Your task to perform on an android device: Open Reddit.com Image 0: 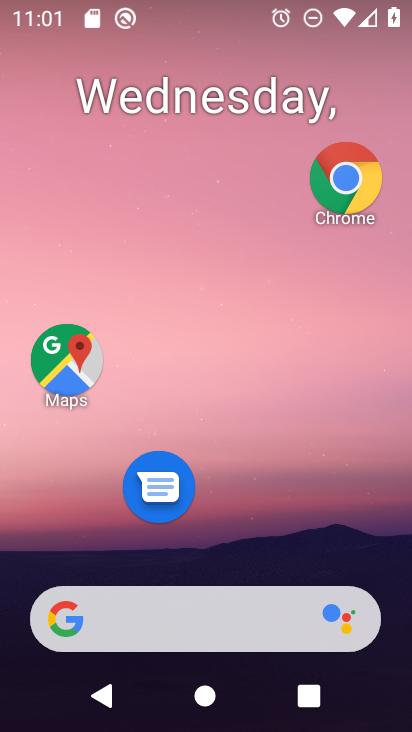
Step 0: drag from (219, 574) to (282, 99)
Your task to perform on an android device: Open Reddit.com Image 1: 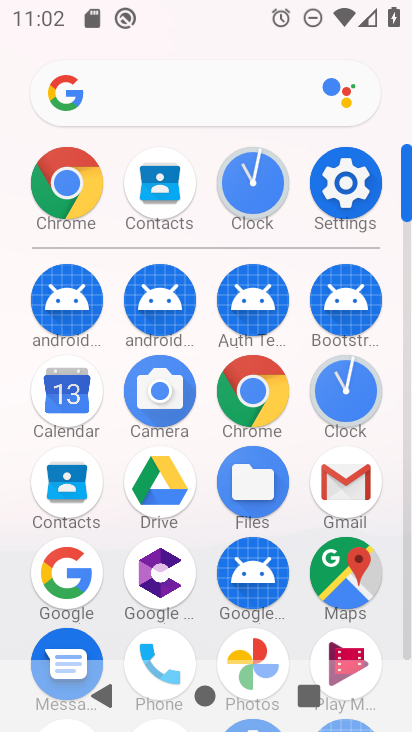
Step 1: click (251, 399)
Your task to perform on an android device: Open Reddit.com Image 2: 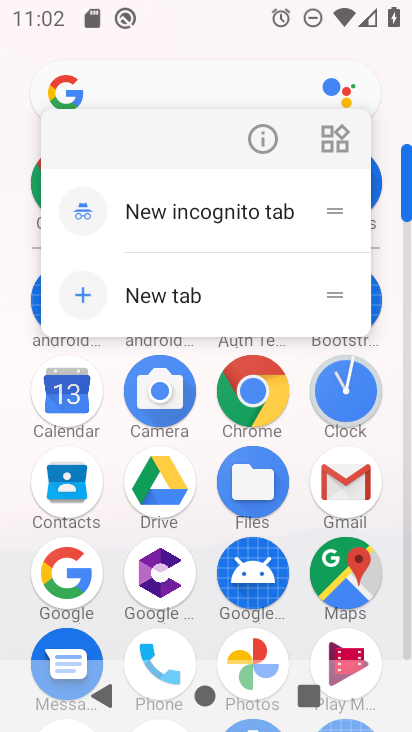
Step 2: click (251, 417)
Your task to perform on an android device: Open Reddit.com Image 3: 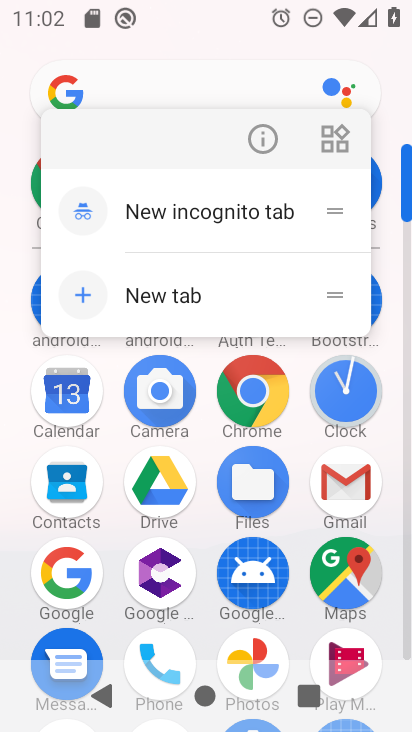
Step 3: click (250, 414)
Your task to perform on an android device: Open Reddit.com Image 4: 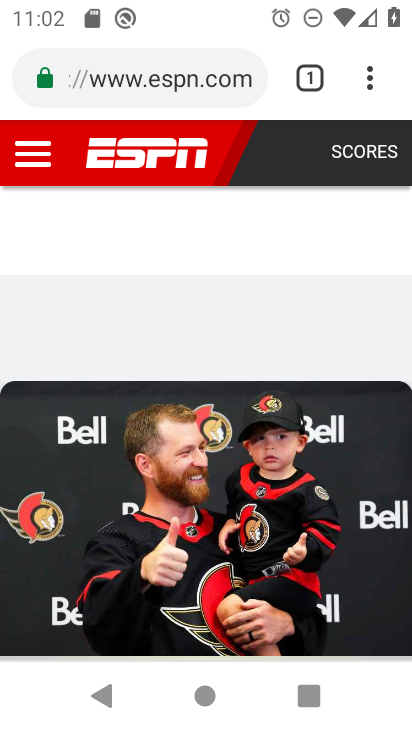
Step 4: click (224, 74)
Your task to perform on an android device: Open Reddit.com Image 5: 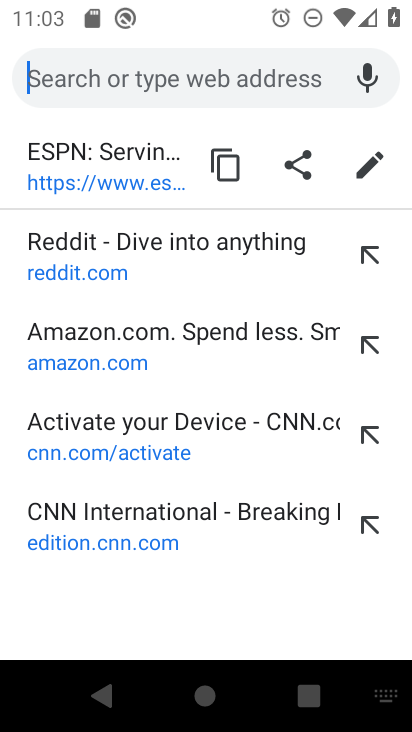
Step 5: click (120, 241)
Your task to perform on an android device: Open Reddit.com Image 6: 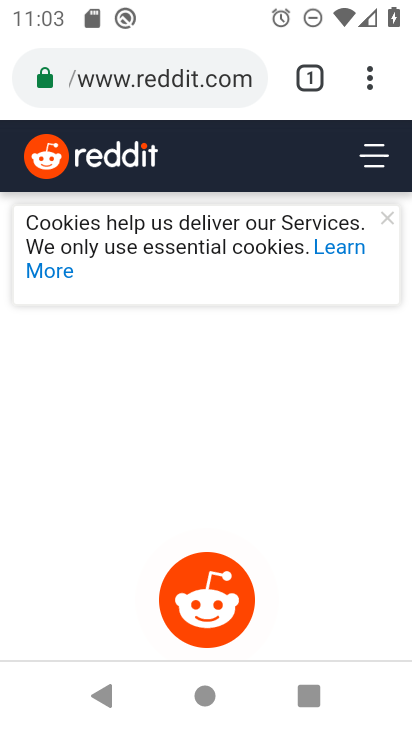
Step 6: task complete